Your task to perform on an android device: Add "corsair k70" to the cart on newegg Image 0: 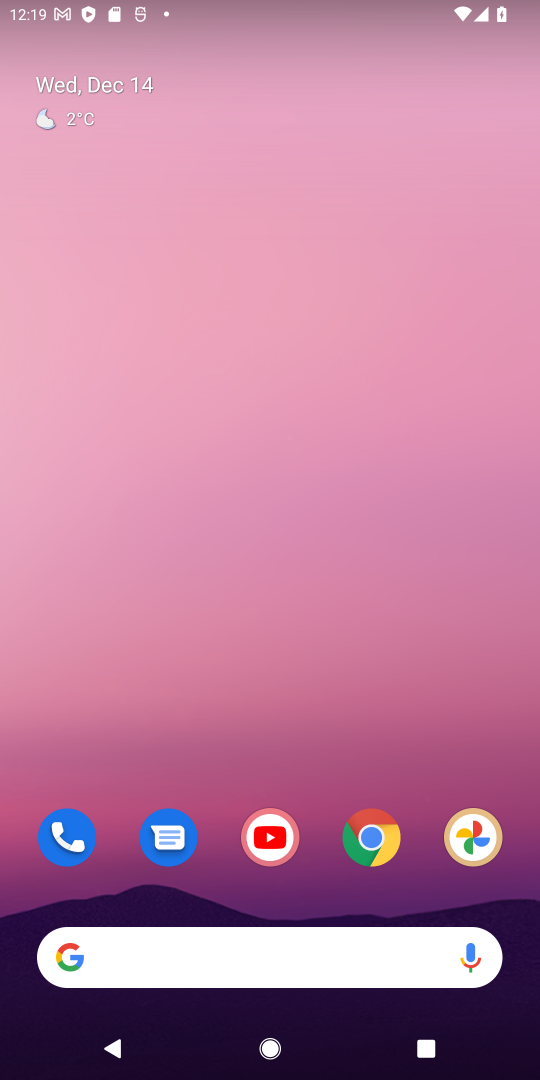
Step 0: click (315, 965)
Your task to perform on an android device: Add "corsair k70" to the cart on newegg Image 1: 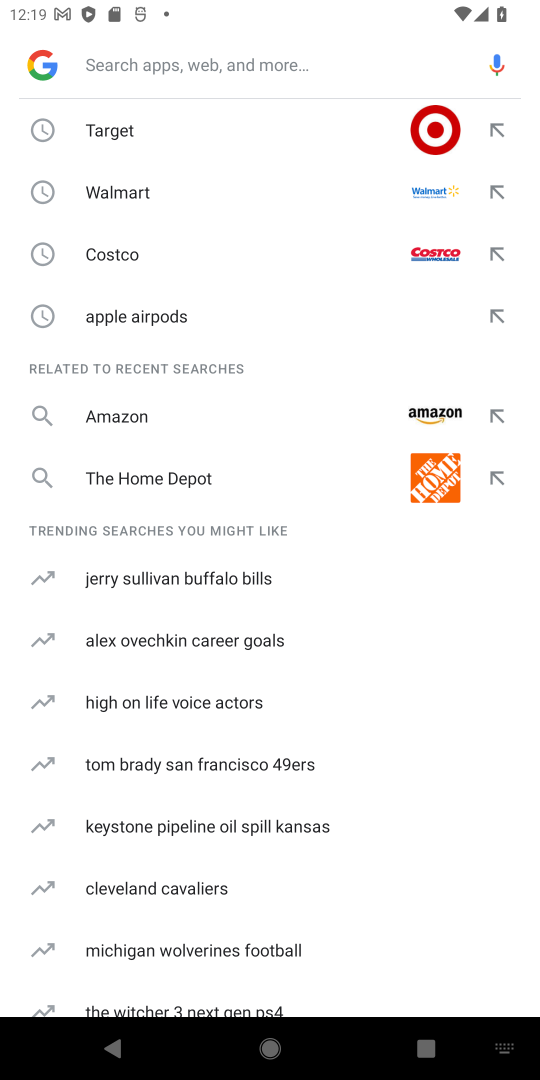
Step 1: type "newegg"
Your task to perform on an android device: Add "corsair k70" to the cart on newegg Image 2: 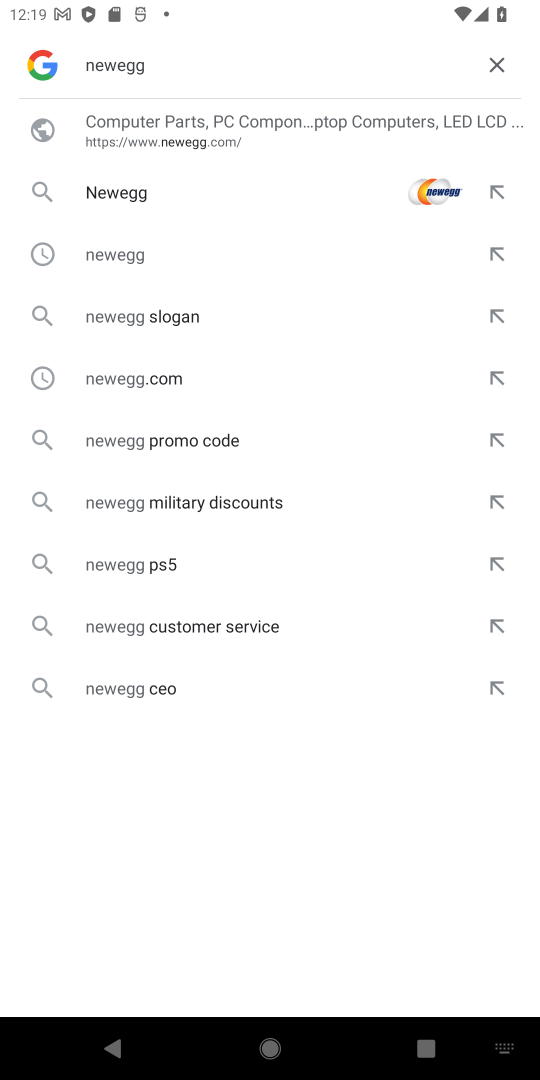
Step 2: click (254, 135)
Your task to perform on an android device: Add "corsair k70" to the cart on newegg Image 3: 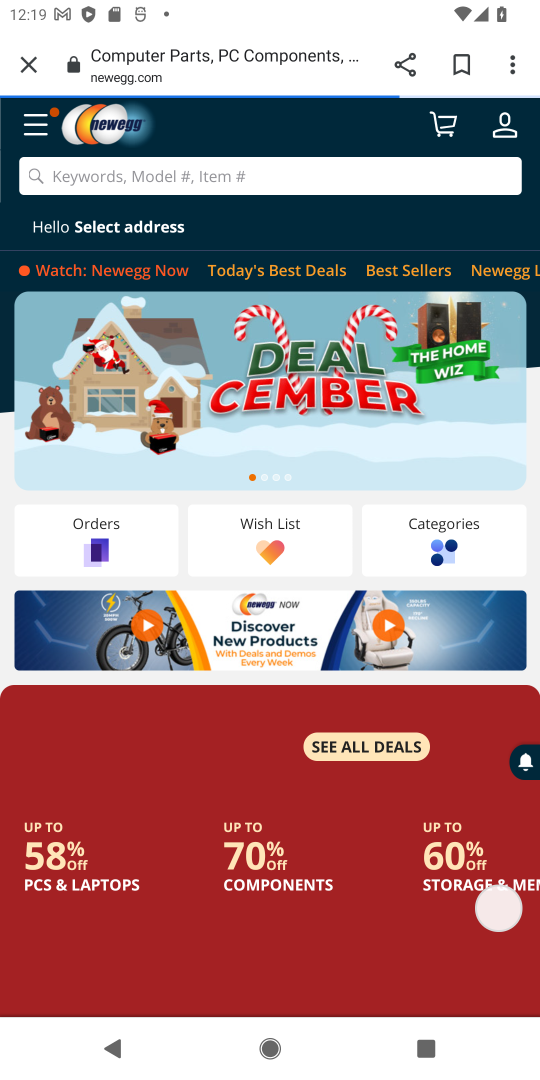
Step 3: click (292, 185)
Your task to perform on an android device: Add "corsair k70" to the cart on newegg Image 4: 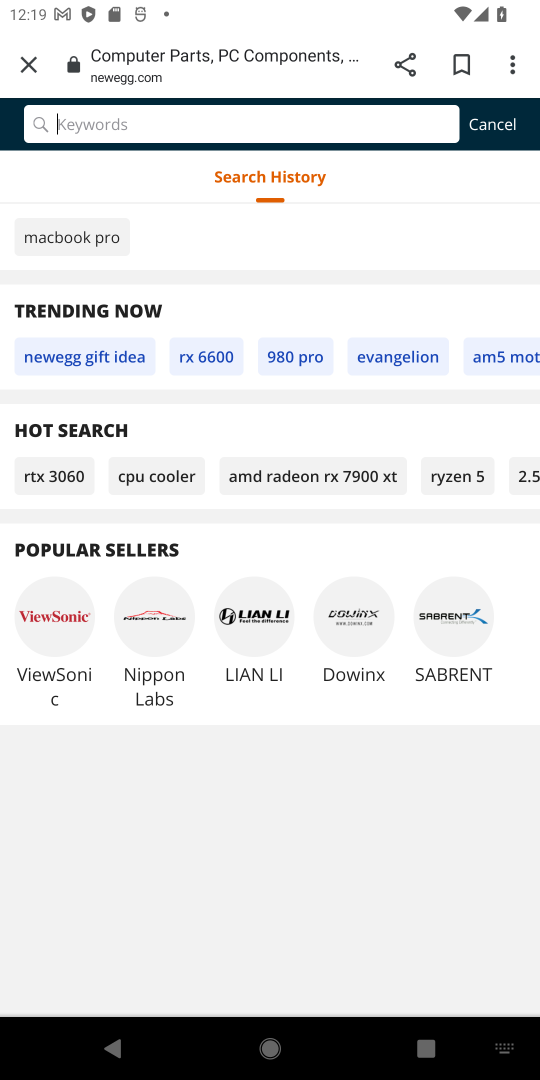
Step 4: type "corsair k70"
Your task to perform on an android device: Add "corsair k70" to the cart on newegg Image 5: 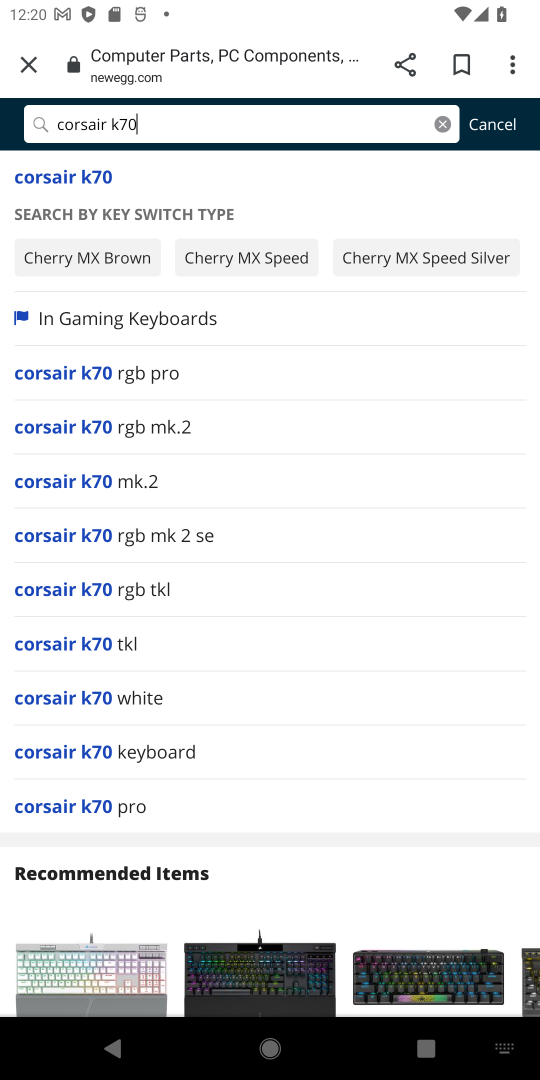
Step 5: click (99, 182)
Your task to perform on an android device: Add "corsair k70" to the cart on newegg Image 6: 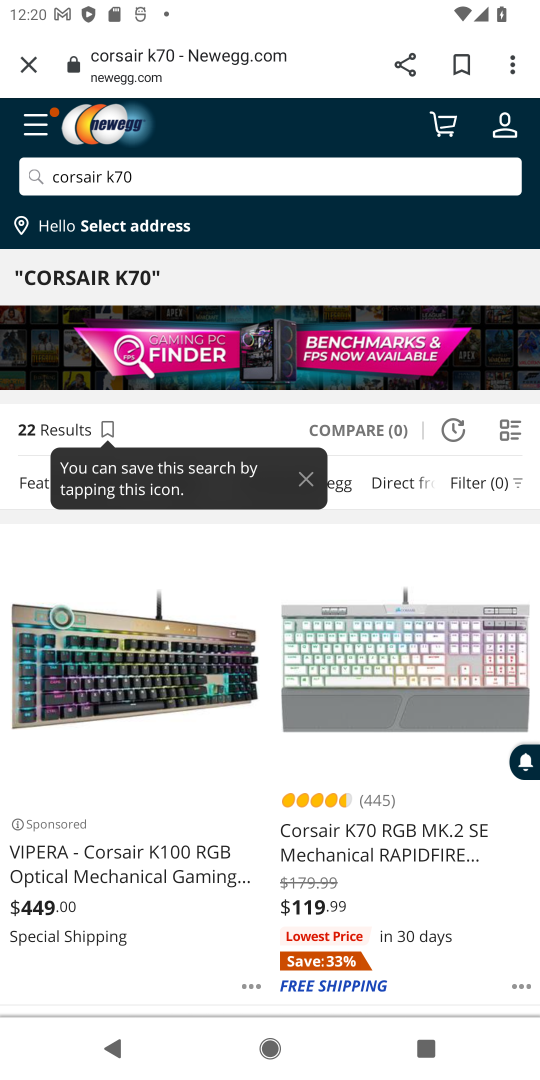
Step 6: click (119, 807)
Your task to perform on an android device: Add "corsair k70" to the cart on newegg Image 7: 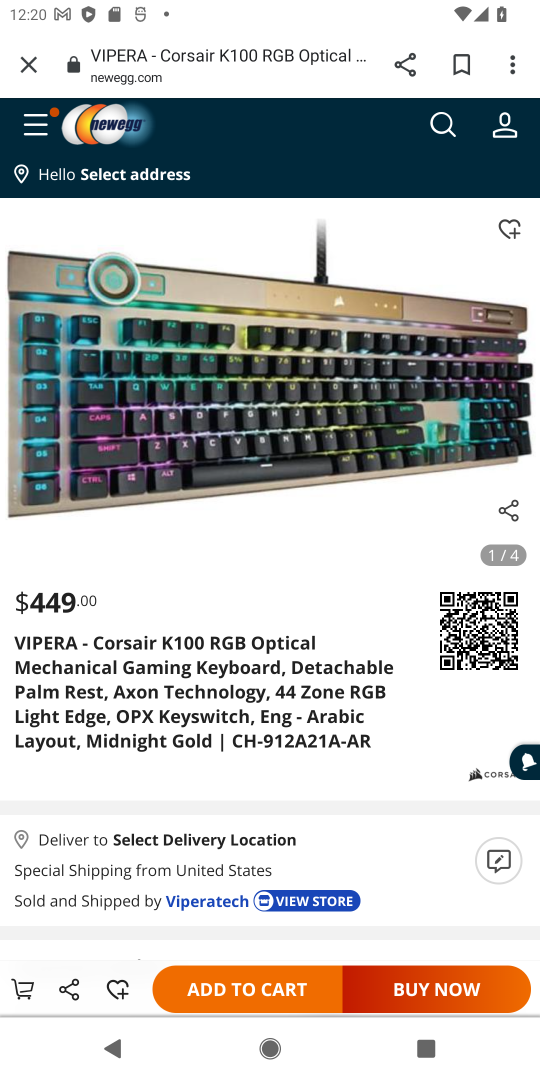
Step 7: click (200, 999)
Your task to perform on an android device: Add "corsair k70" to the cart on newegg Image 8: 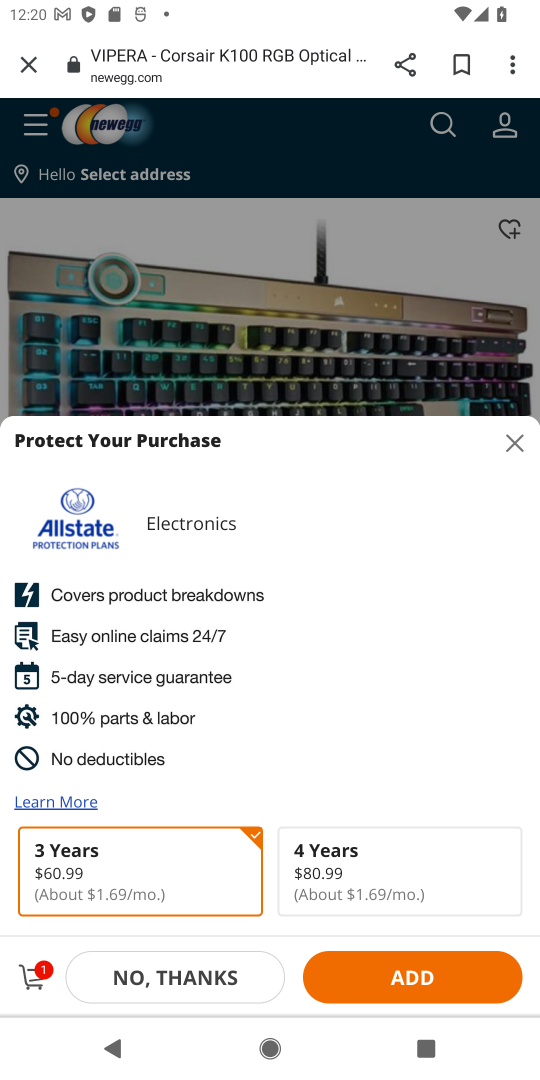
Step 8: task complete